Your task to perform on an android device: Go to notification settings Image 0: 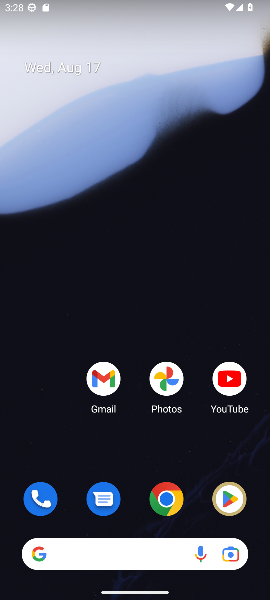
Step 0: drag from (135, 472) to (111, 34)
Your task to perform on an android device: Go to notification settings Image 1: 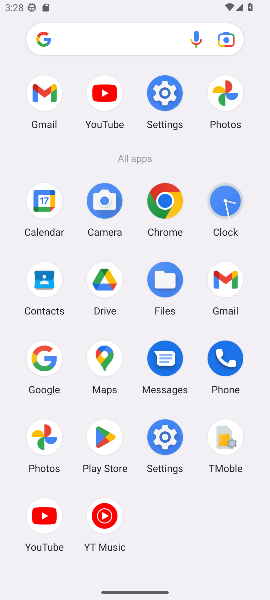
Step 1: click (167, 440)
Your task to perform on an android device: Go to notification settings Image 2: 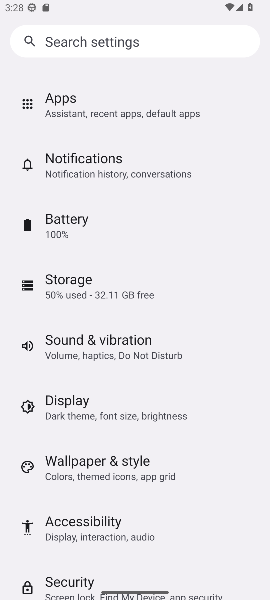
Step 2: click (78, 172)
Your task to perform on an android device: Go to notification settings Image 3: 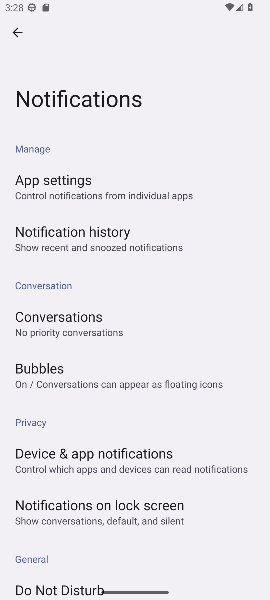
Step 3: task complete